Your task to perform on an android device: all mails in gmail Image 0: 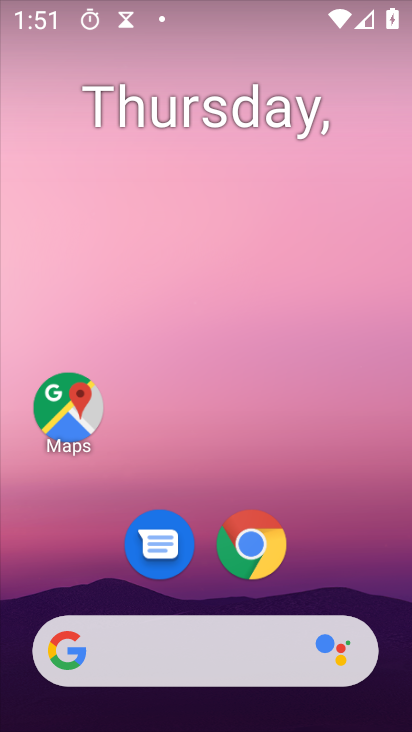
Step 0: drag from (225, 723) to (219, 85)
Your task to perform on an android device: all mails in gmail Image 1: 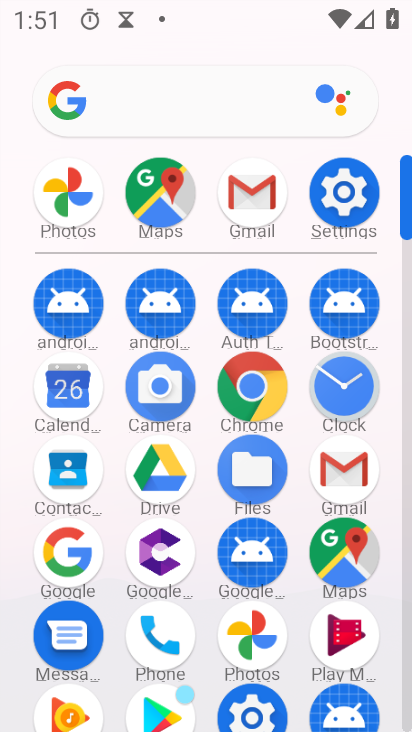
Step 1: click (342, 467)
Your task to perform on an android device: all mails in gmail Image 2: 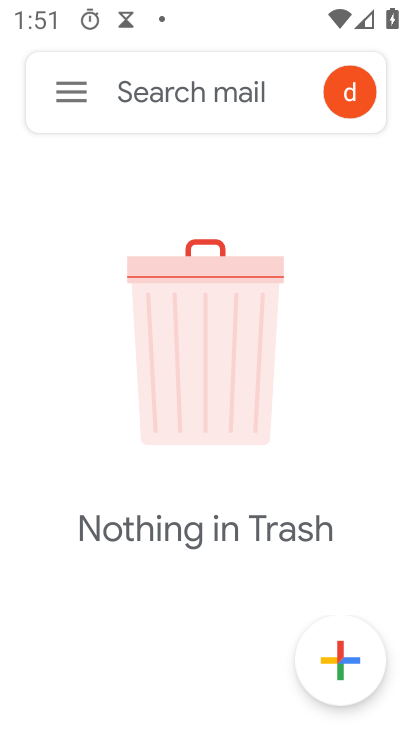
Step 2: click (65, 93)
Your task to perform on an android device: all mails in gmail Image 3: 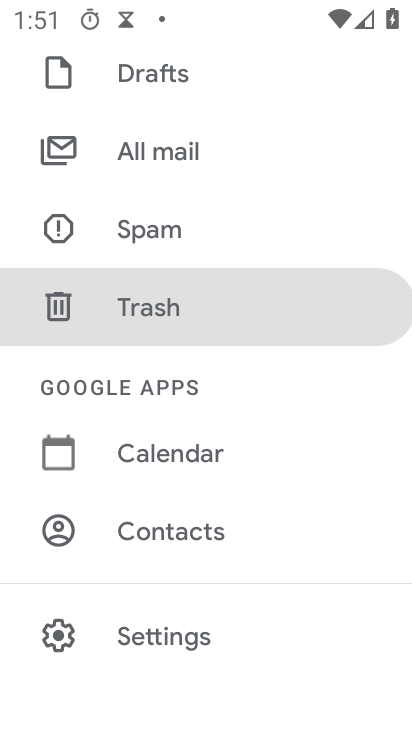
Step 3: click (192, 142)
Your task to perform on an android device: all mails in gmail Image 4: 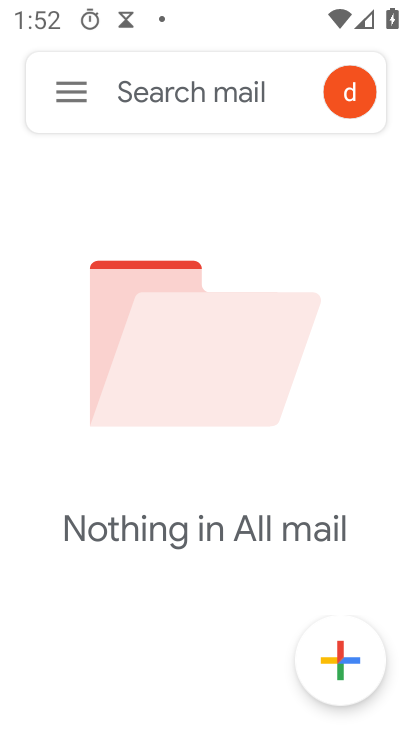
Step 4: task complete